Your task to perform on an android device: check battery use Image 0: 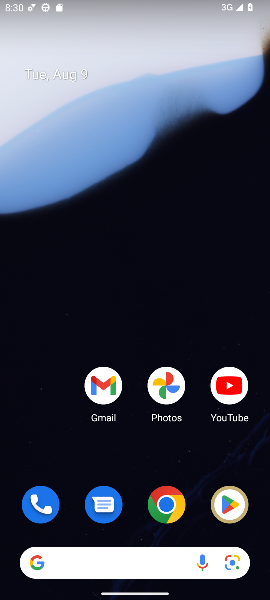
Step 0: drag from (131, 478) to (125, 36)
Your task to perform on an android device: check battery use Image 1: 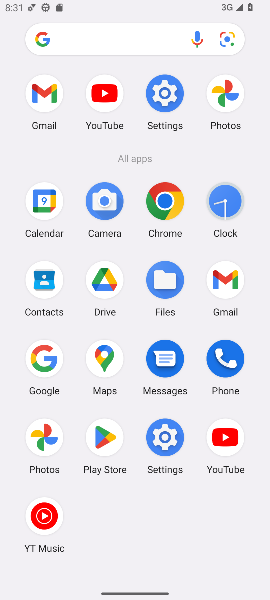
Step 1: click (168, 97)
Your task to perform on an android device: check battery use Image 2: 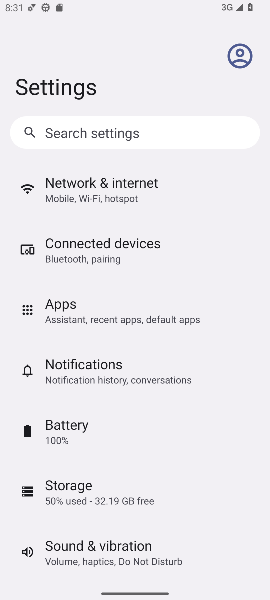
Step 2: click (66, 425)
Your task to perform on an android device: check battery use Image 3: 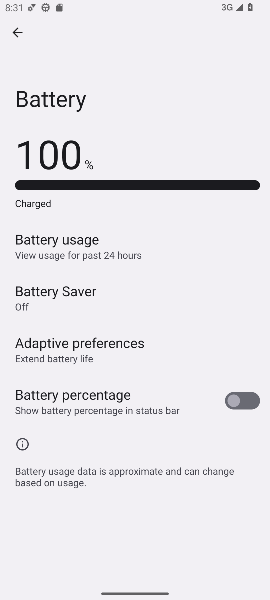
Step 3: task complete